Your task to perform on an android device: Go to Yahoo.com Image 0: 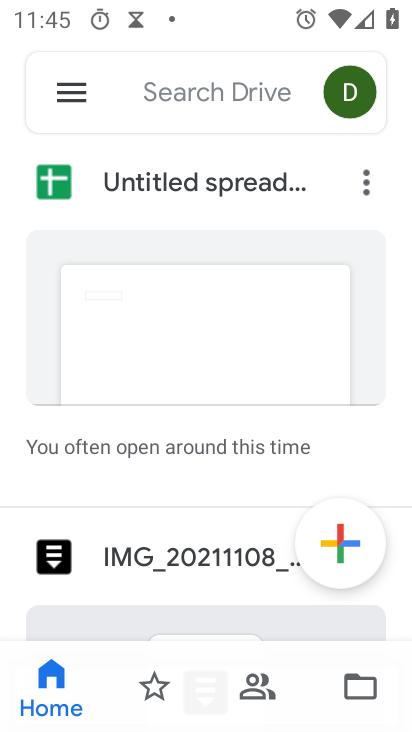
Step 0: press home button
Your task to perform on an android device: Go to Yahoo.com Image 1: 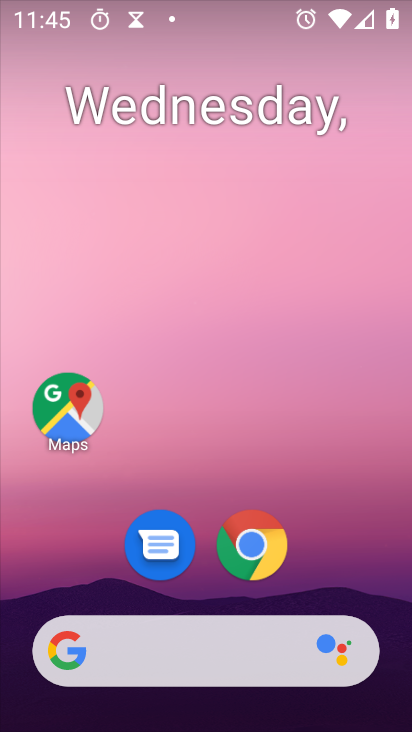
Step 1: click (248, 563)
Your task to perform on an android device: Go to Yahoo.com Image 2: 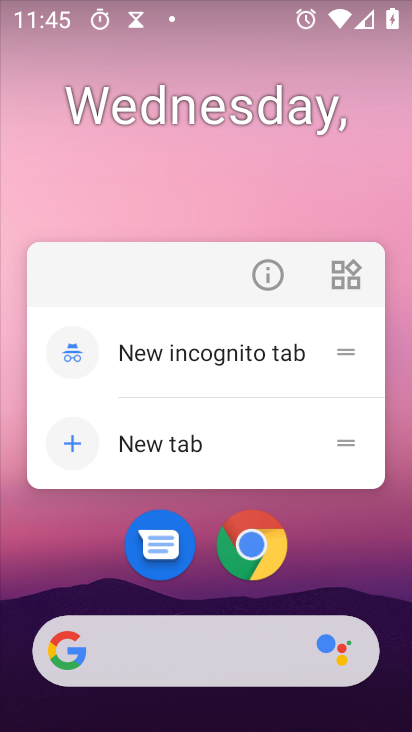
Step 2: click (258, 549)
Your task to perform on an android device: Go to Yahoo.com Image 3: 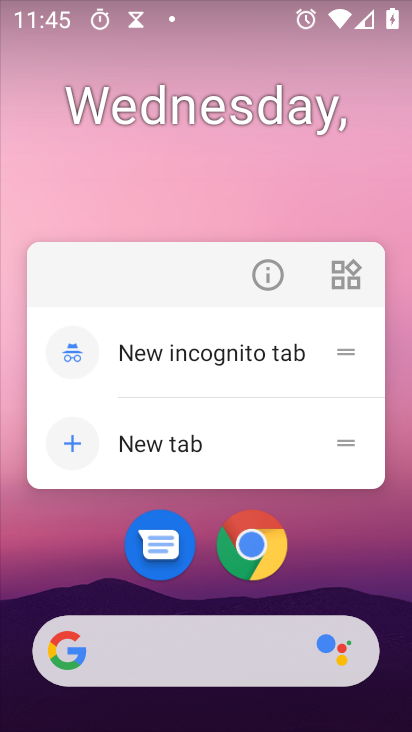
Step 3: click (254, 557)
Your task to perform on an android device: Go to Yahoo.com Image 4: 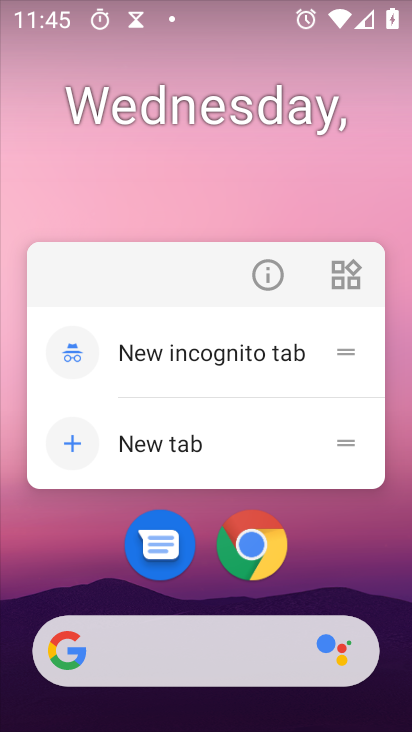
Step 4: click (244, 548)
Your task to perform on an android device: Go to Yahoo.com Image 5: 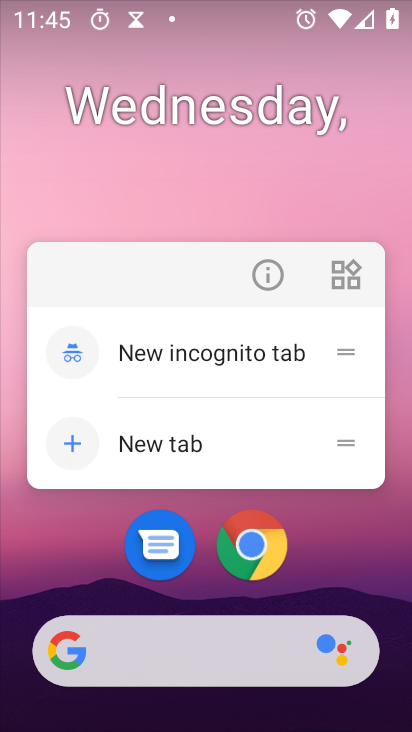
Step 5: click (246, 551)
Your task to perform on an android device: Go to Yahoo.com Image 6: 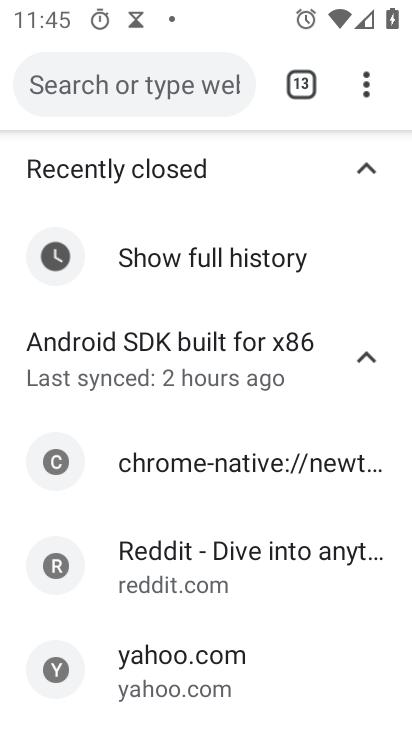
Step 6: drag from (360, 89) to (225, 164)
Your task to perform on an android device: Go to Yahoo.com Image 7: 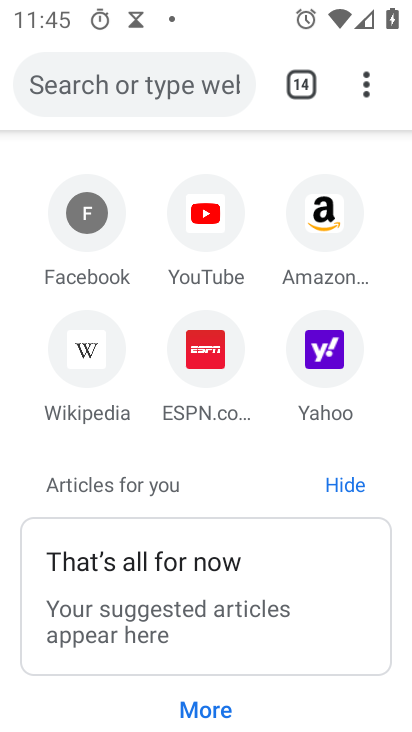
Step 7: click (330, 357)
Your task to perform on an android device: Go to Yahoo.com Image 8: 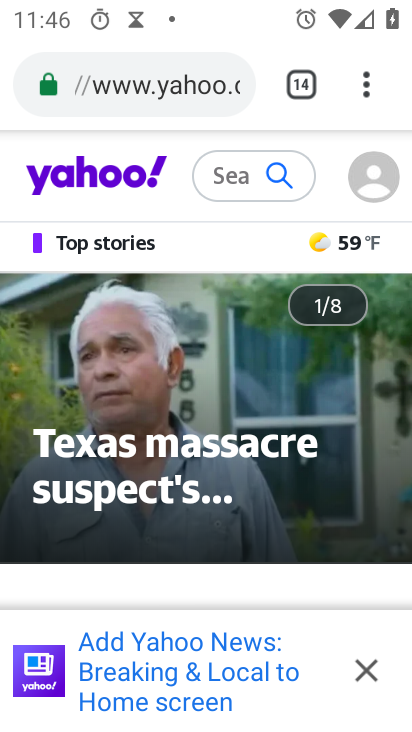
Step 8: task complete